Your task to perform on an android device: toggle notifications settings in the gmail app Image 0: 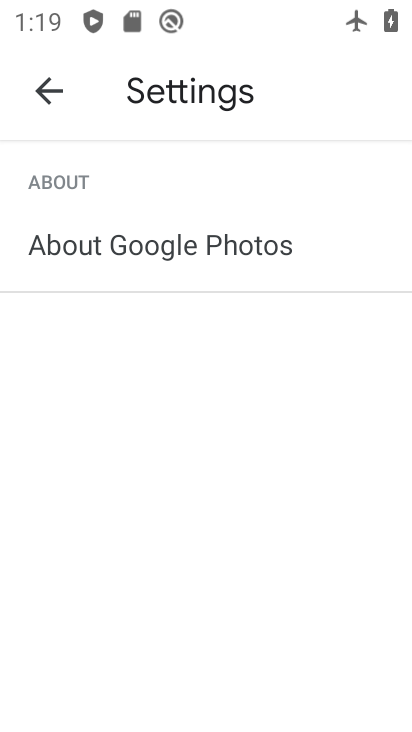
Step 0: press home button
Your task to perform on an android device: toggle notifications settings in the gmail app Image 1: 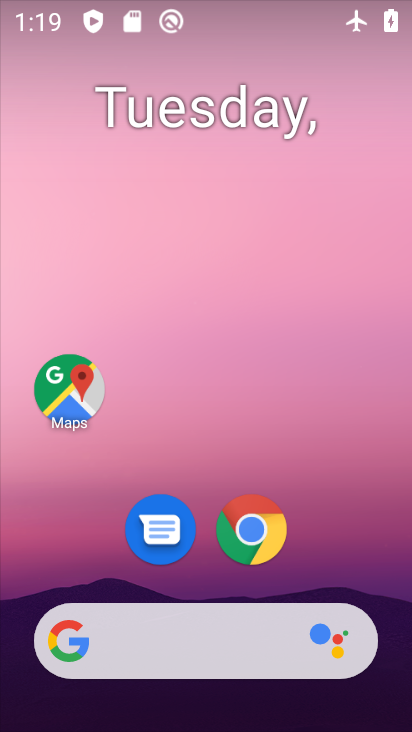
Step 1: drag from (395, 557) to (316, 113)
Your task to perform on an android device: toggle notifications settings in the gmail app Image 2: 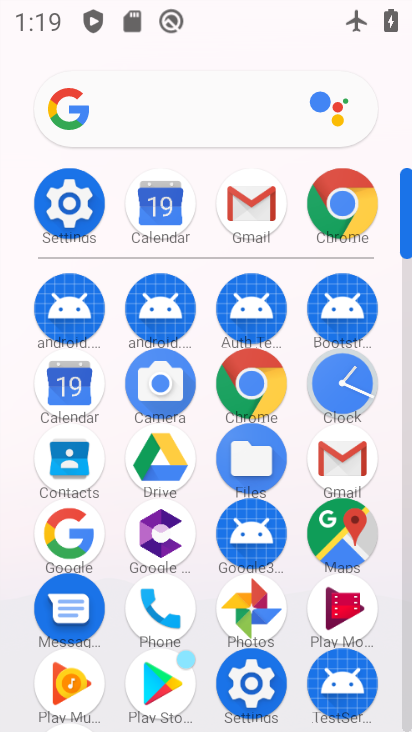
Step 2: click (250, 195)
Your task to perform on an android device: toggle notifications settings in the gmail app Image 3: 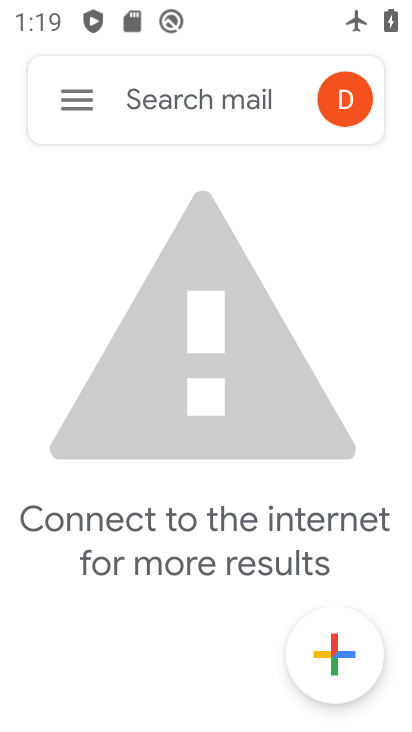
Step 3: click (78, 113)
Your task to perform on an android device: toggle notifications settings in the gmail app Image 4: 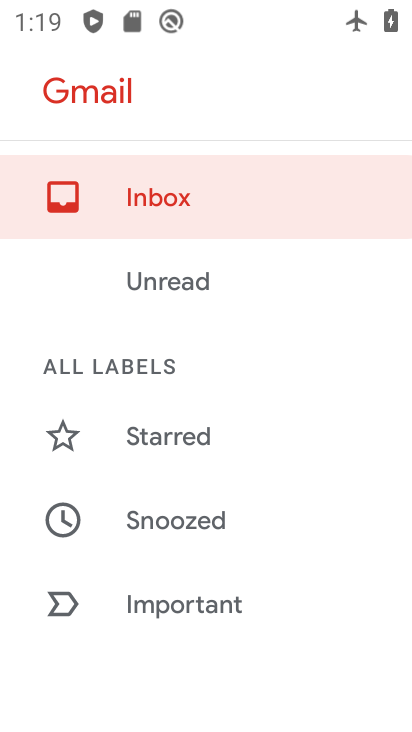
Step 4: drag from (335, 667) to (325, 331)
Your task to perform on an android device: toggle notifications settings in the gmail app Image 5: 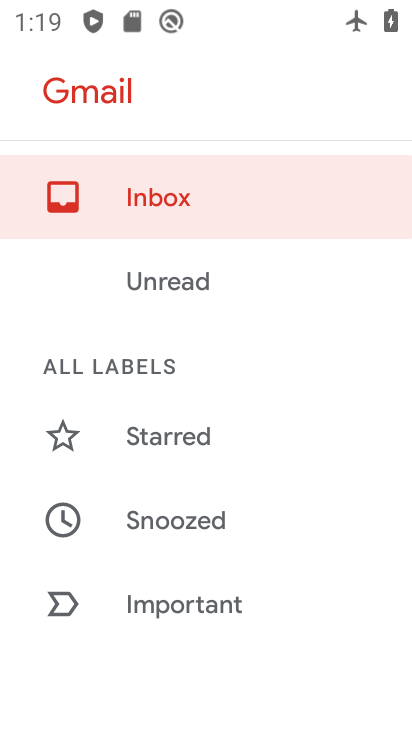
Step 5: drag from (386, 647) to (378, 213)
Your task to perform on an android device: toggle notifications settings in the gmail app Image 6: 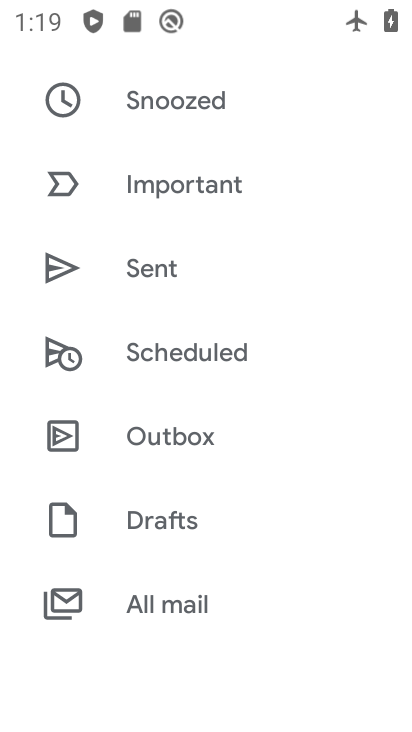
Step 6: drag from (379, 564) to (367, 168)
Your task to perform on an android device: toggle notifications settings in the gmail app Image 7: 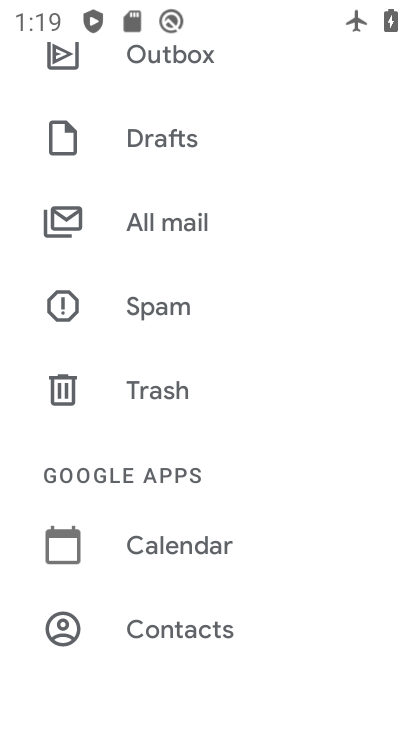
Step 7: drag from (380, 596) to (360, 195)
Your task to perform on an android device: toggle notifications settings in the gmail app Image 8: 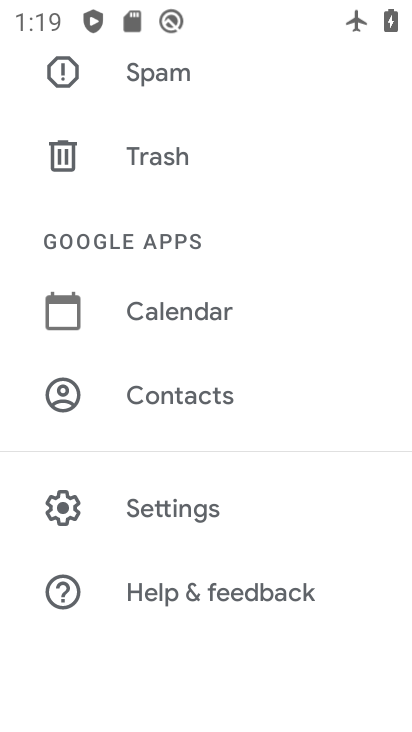
Step 8: click (336, 494)
Your task to perform on an android device: toggle notifications settings in the gmail app Image 9: 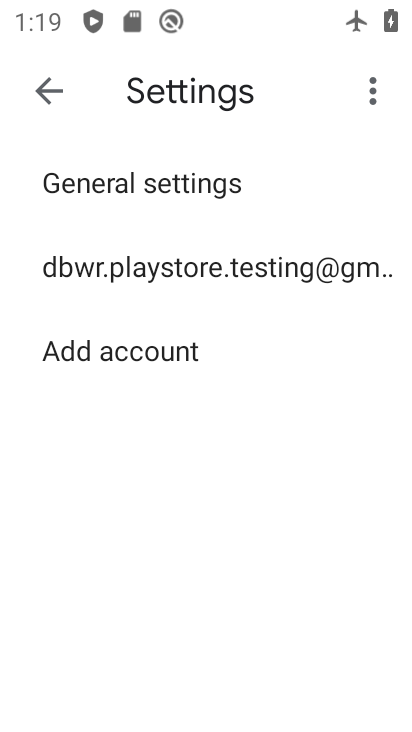
Step 9: click (302, 271)
Your task to perform on an android device: toggle notifications settings in the gmail app Image 10: 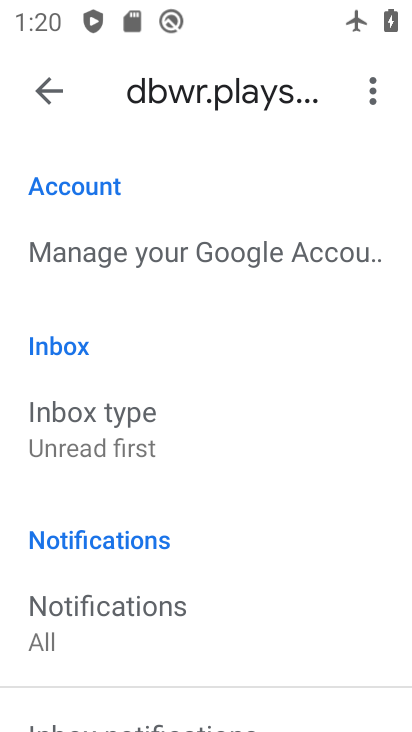
Step 10: drag from (308, 513) to (340, 137)
Your task to perform on an android device: toggle notifications settings in the gmail app Image 11: 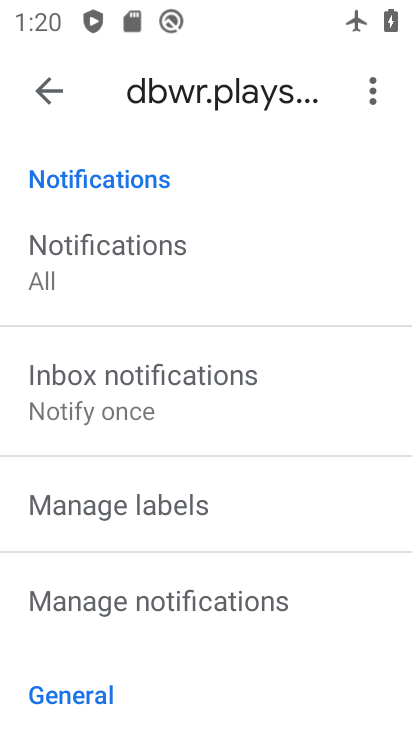
Step 11: click (331, 605)
Your task to perform on an android device: toggle notifications settings in the gmail app Image 12: 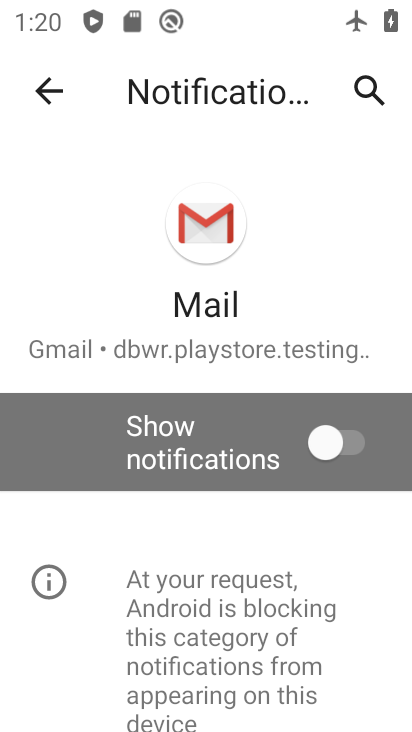
Step 12: click (345, 462)
Your task to perform on an android device: toggle notifications settings in the gmail app Image 13: 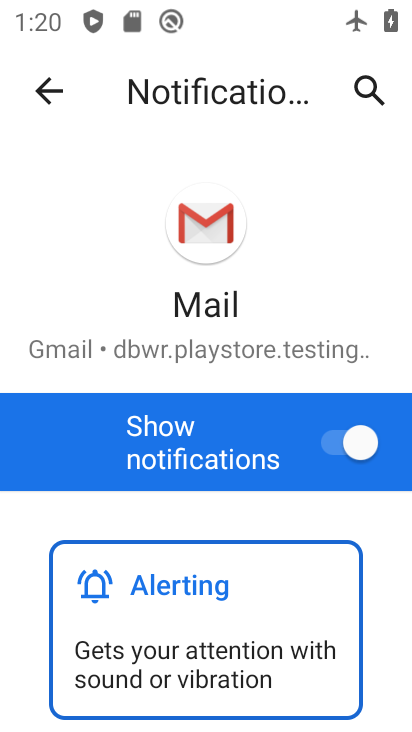
Step 13: task complete